Your task to perform on an android device: Search for "acer predator" on bestbuy.com, select the first entry, and add it to the cart. Image 0: 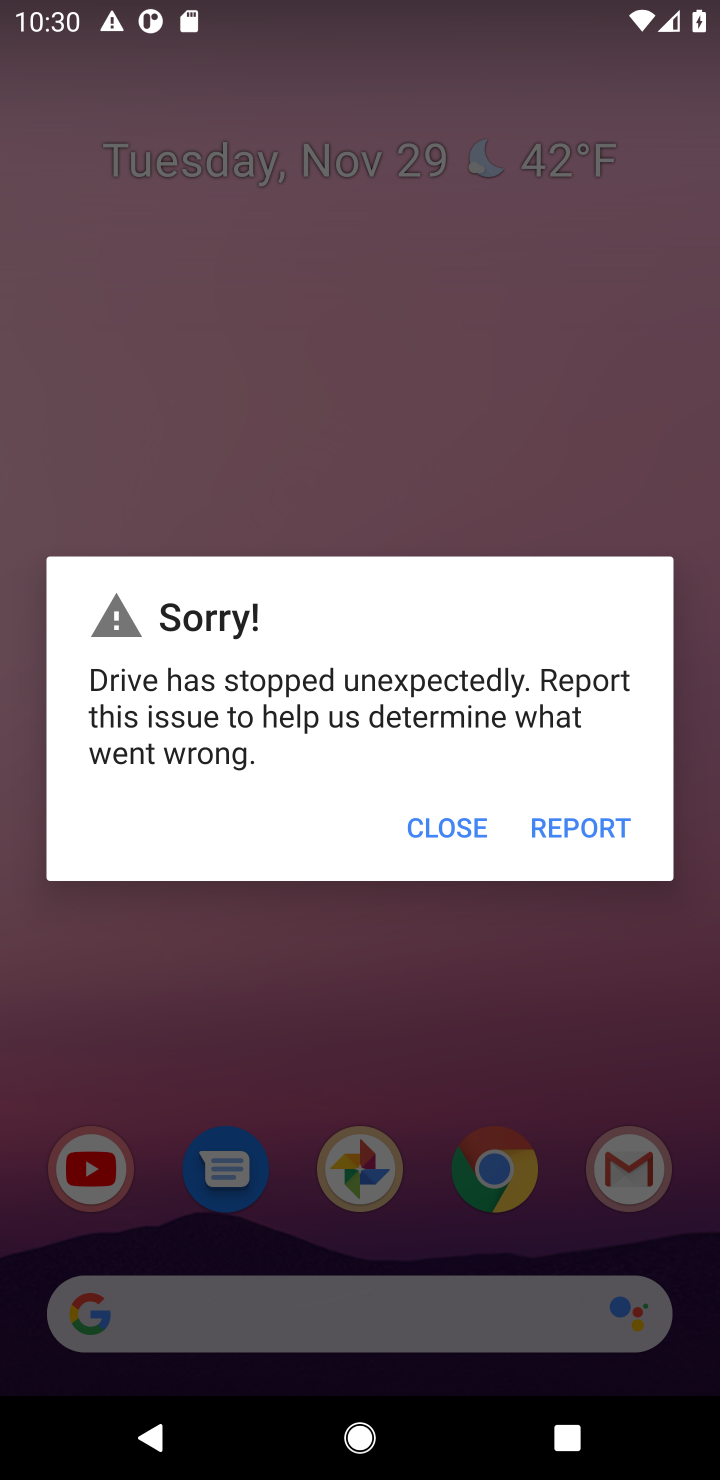
Step 0: click (450, 858)
Your task to perform on an android device: Search for "acer predator" on bestbuy.com, select the first entry, and add it to the cart. Image 1: 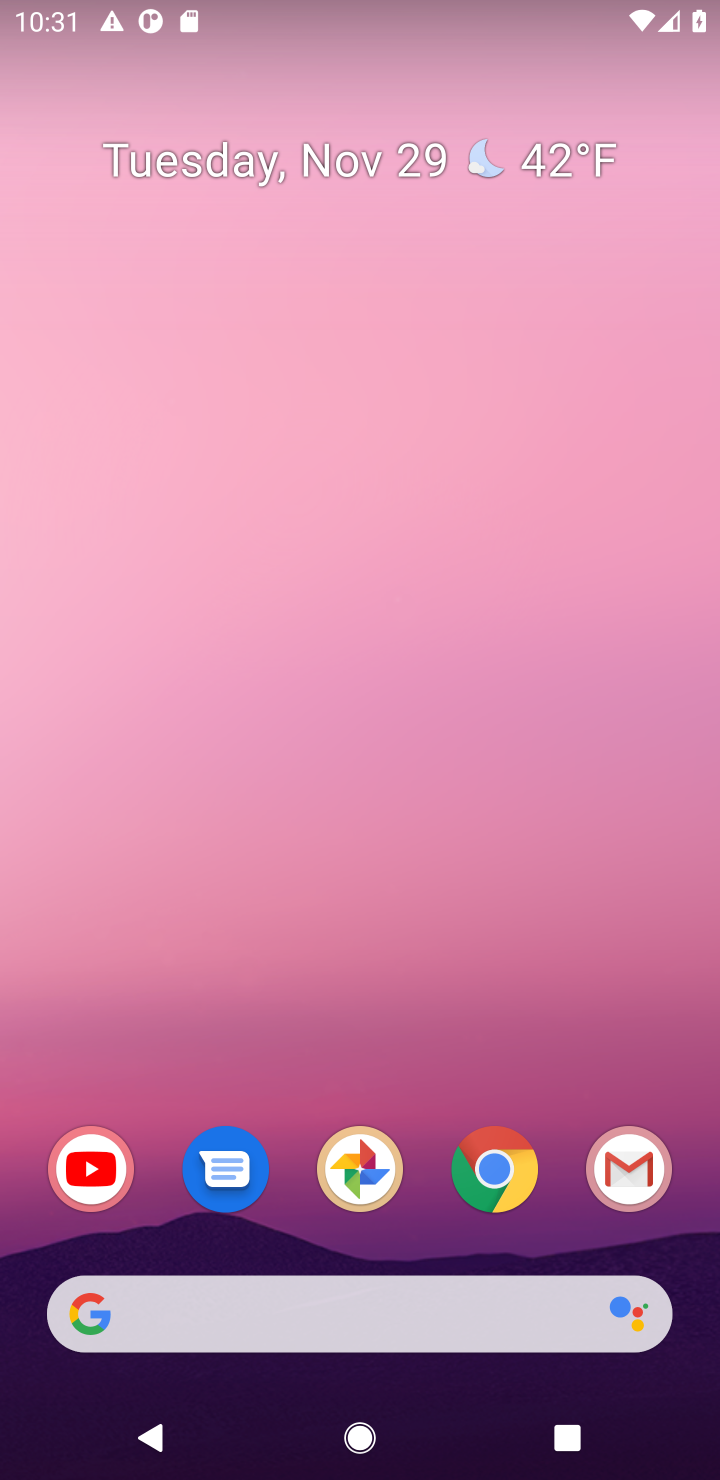
Step 1: click (324, 1324)
Your task to perform on an android device: Search for "acer predator" on bestbuy.com, select the first entry, and add it to the cart. Image 2: 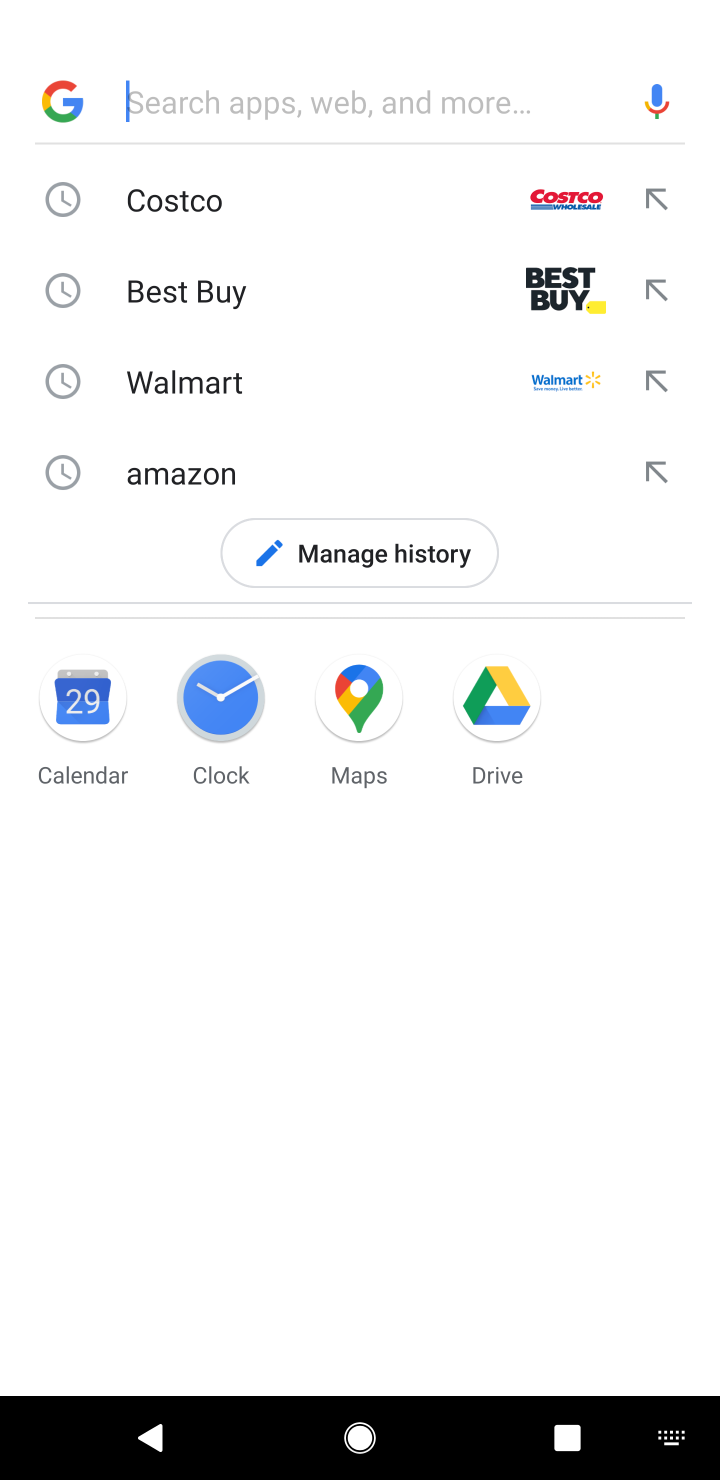
Step 2: type "acer predator"
Your task to perform on an android device: Search for "acer predator" on bestbuy.com, select the first entry, and add it to the cart. Image 3: 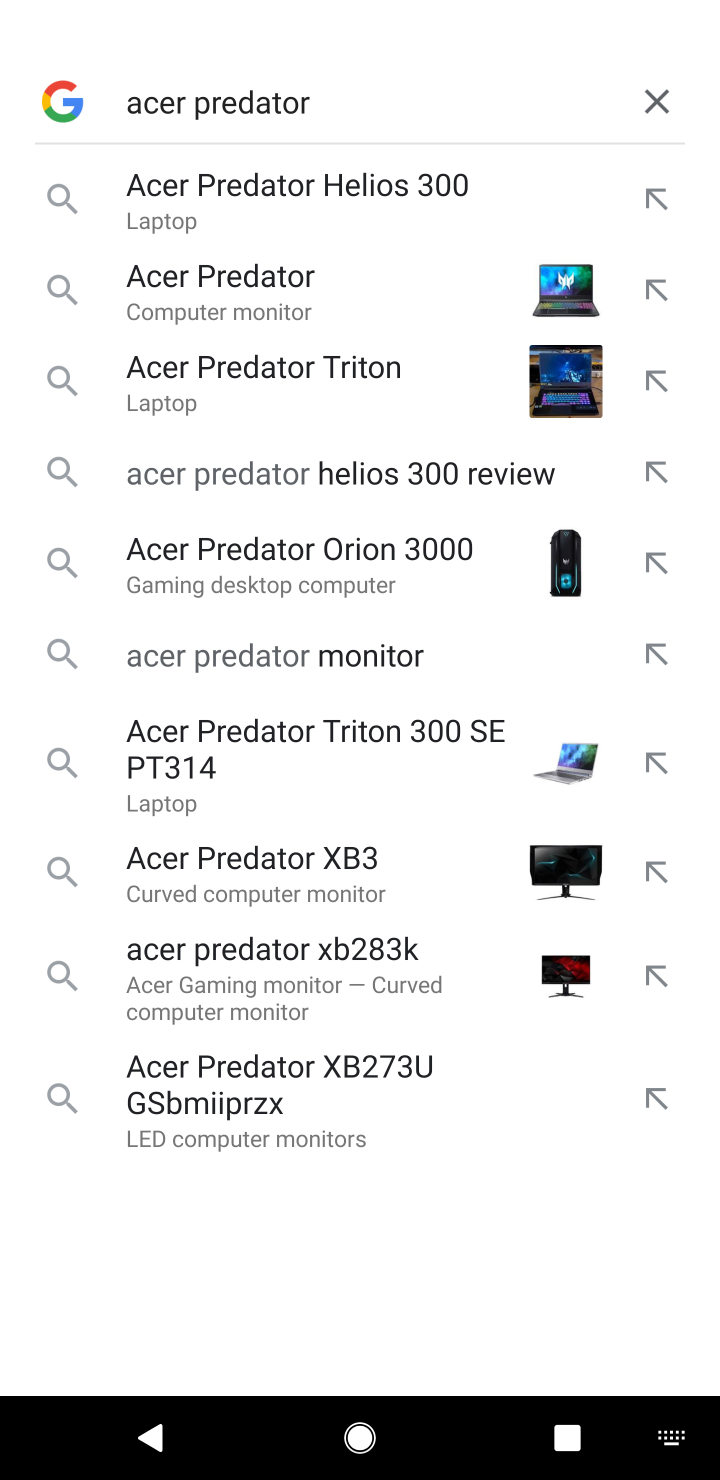
Step 3: click (350, 232)
Your task to perform on an android device: Search for "acer predator" on bestbuy.com, select the first entry, and add it to the cart. Image 4: 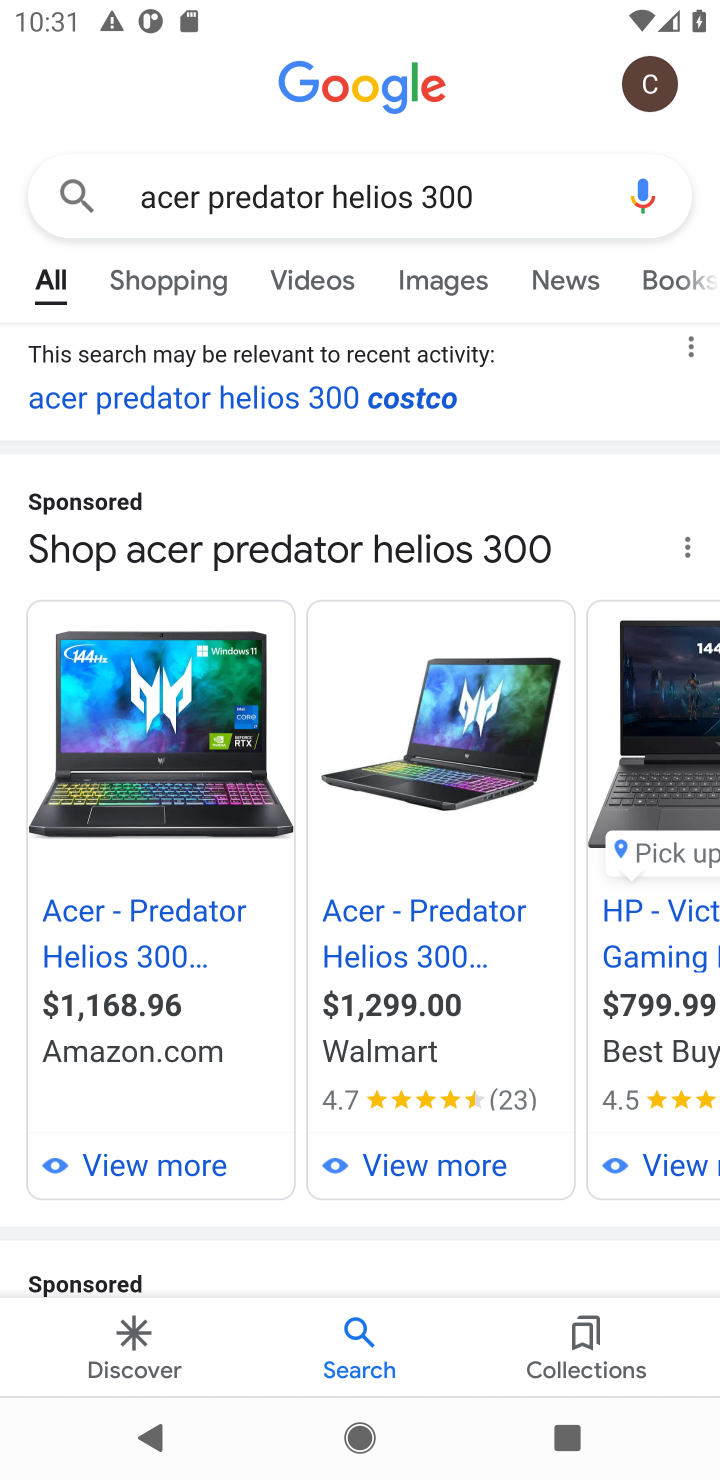
Step 4: click (183, 1032)
Your task to perform on an android device: Search for "acer predator" on bestbuy.com, select the first entry, and add it to the cart. Image 5: 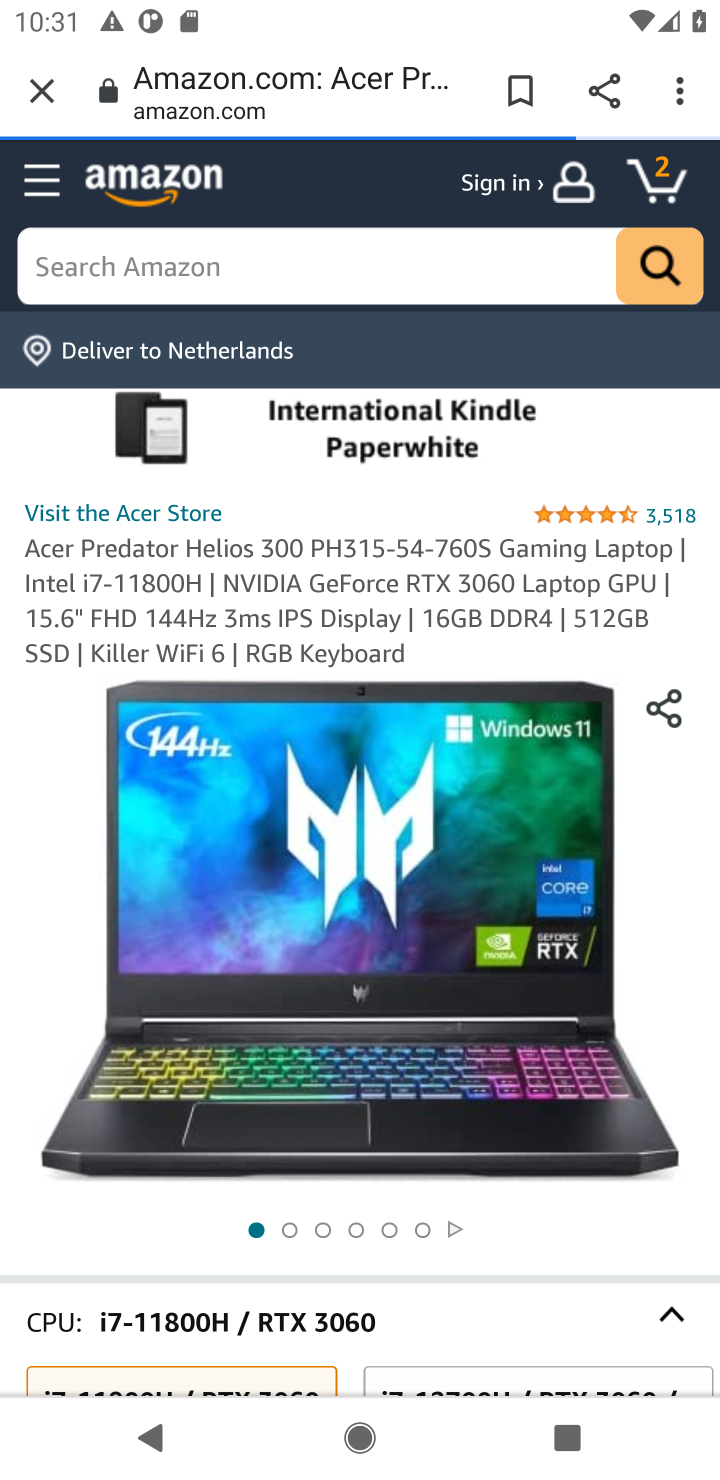
Step 5: drag from (209, 1236) to (147, 313)
Your task to perform on an android device: Search for "acer predator" on bestbuy.com, select the first entry, and add it to the cart. Image 6: 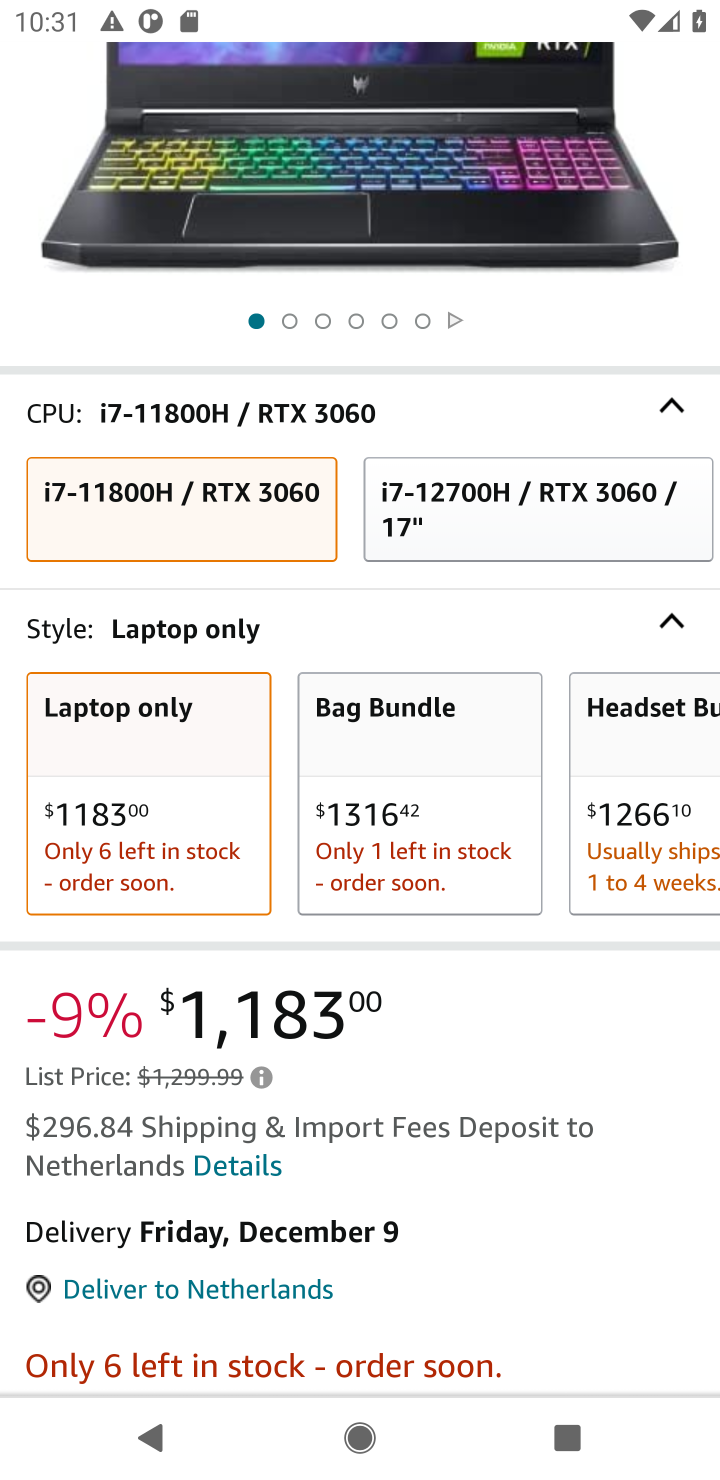
Step 6: drag from (494, 1257) to (442, 419)
Your task to perform on an android device: Search for "acer predator" on bestbuy.com, select the first entry, and add it to the cart. Image 7: 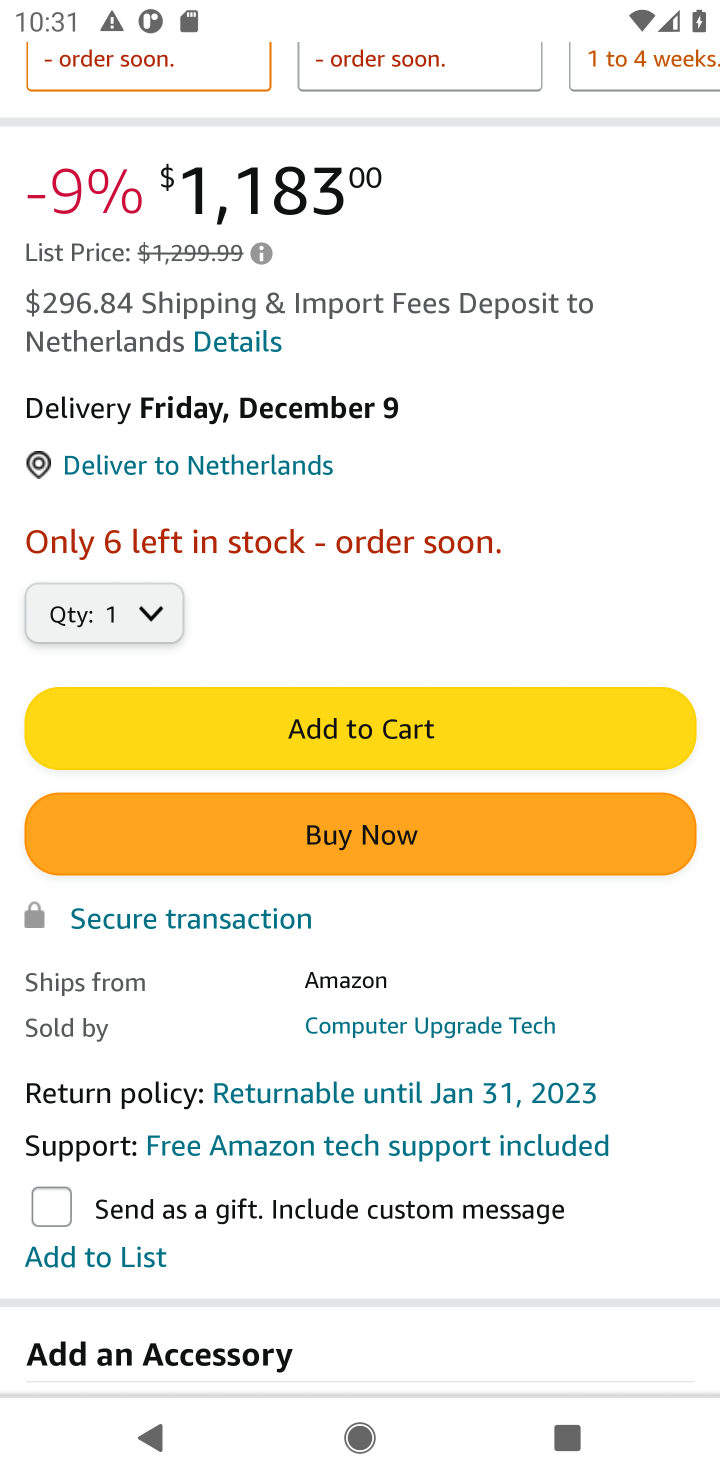
Step 7: click (435, 716)
Your task to perform on an android device: Search for "acer predator" on bestbuy.com, select the first entry, and add it to the cart. Image 8: 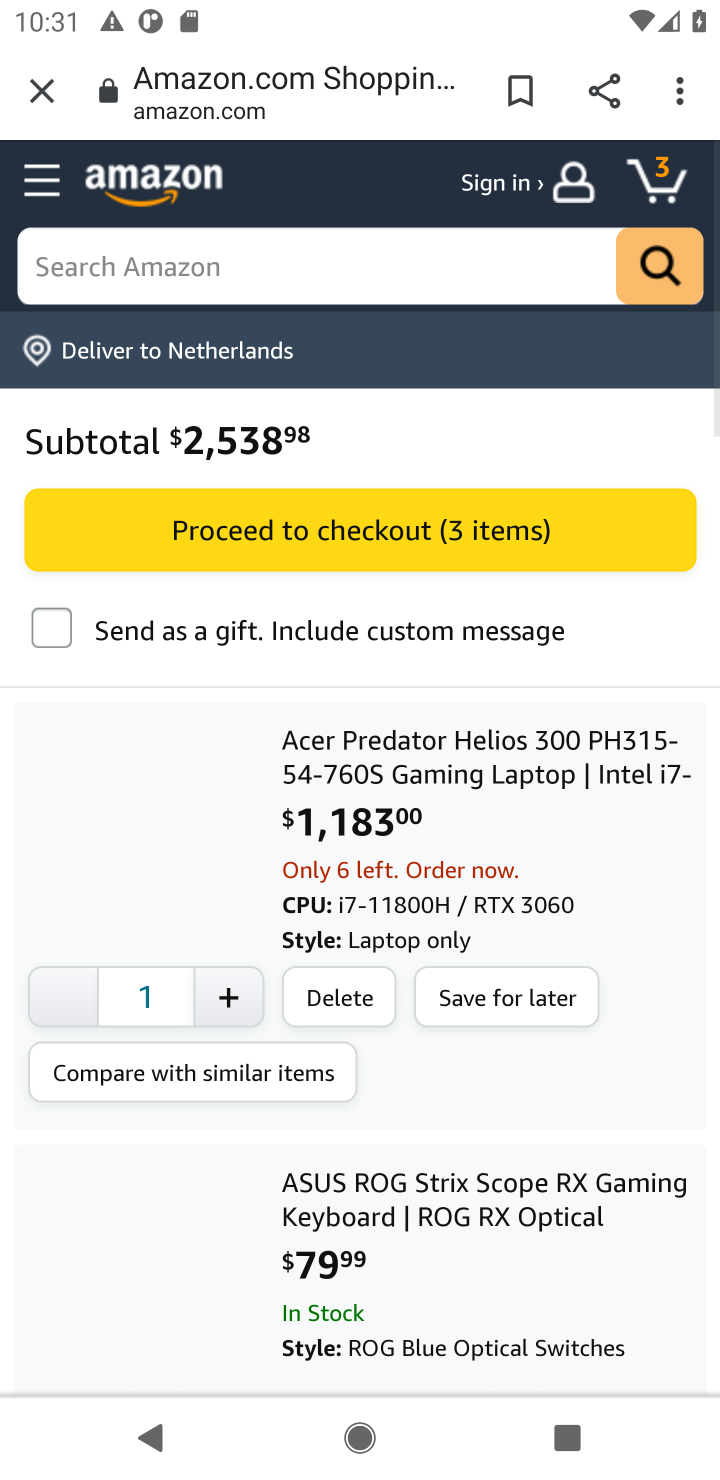
Step 8: task complete